Your task to perform on an android device: What is the speed of light? Image 0: 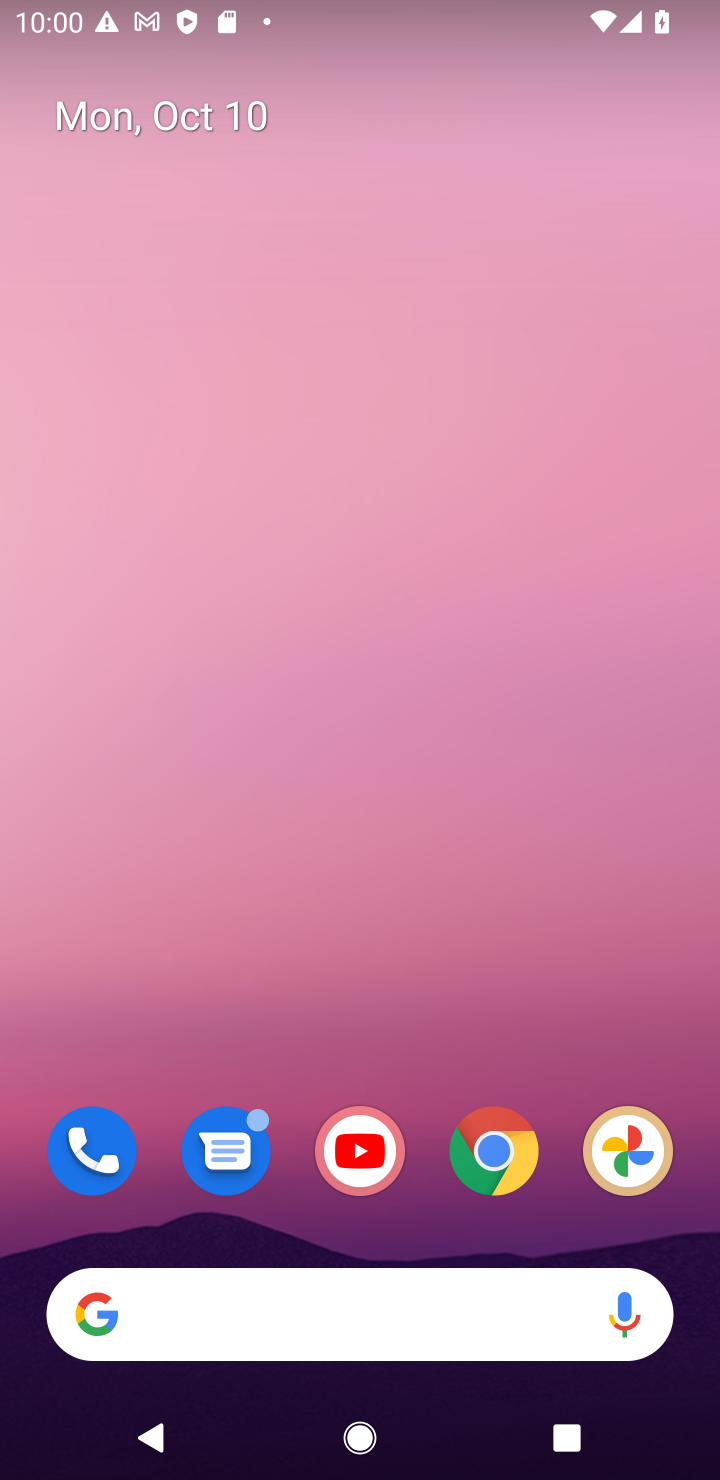
Step 0: click (473, 1179)
Your task to perform on an android device: What is the speed of light? Image 1: 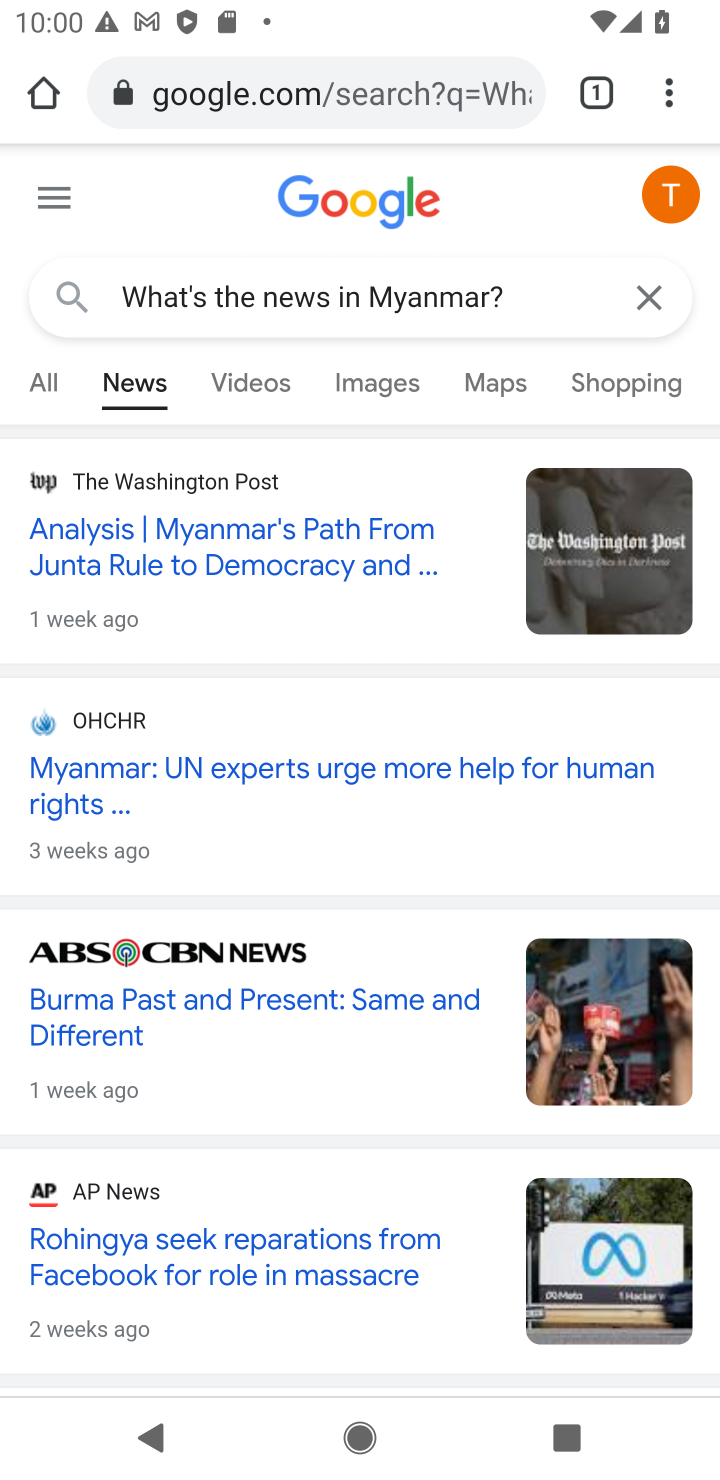
Step 1: click (377, 86)
Your task to perform on an android device: What is the speed of light? Image 2: 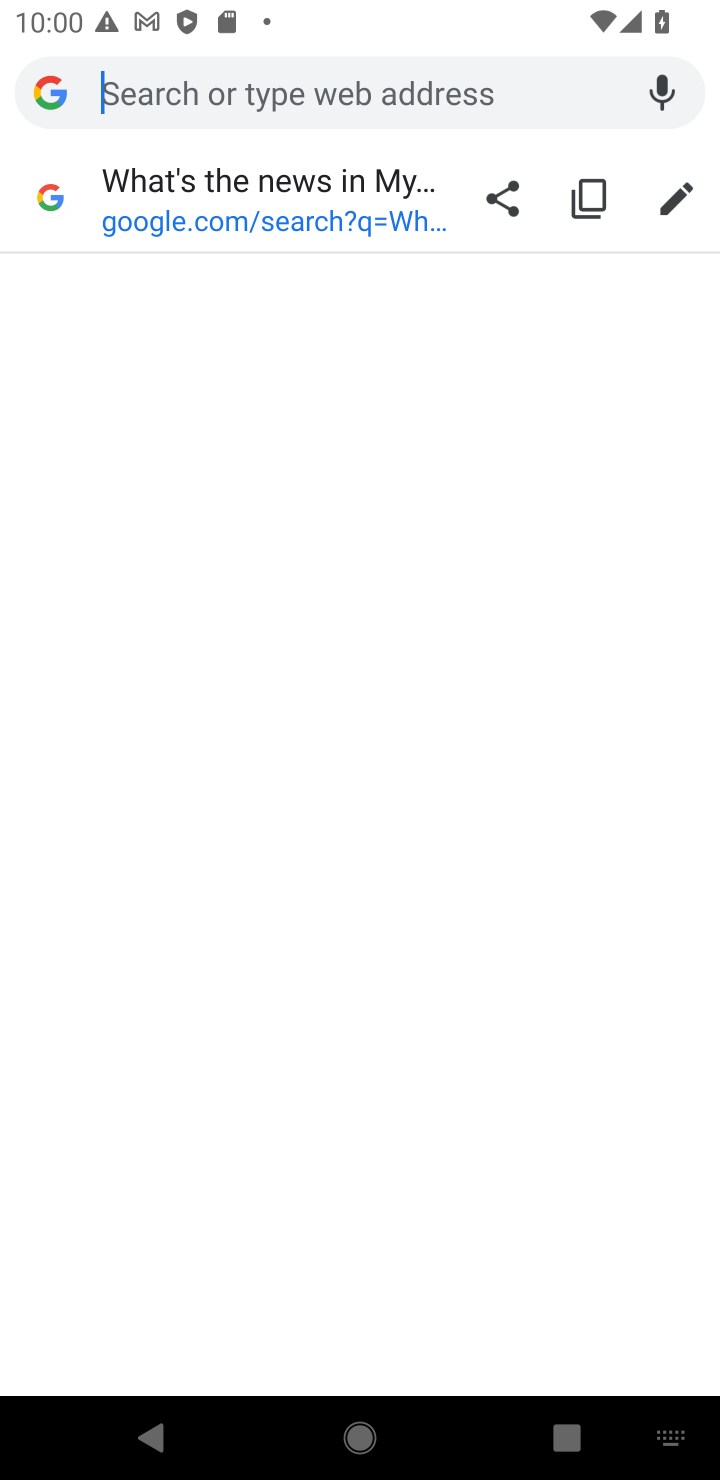
Step 2: type "What is the speed of light?"
Your task to perform on an android device: What is the speed of light? Image 3: 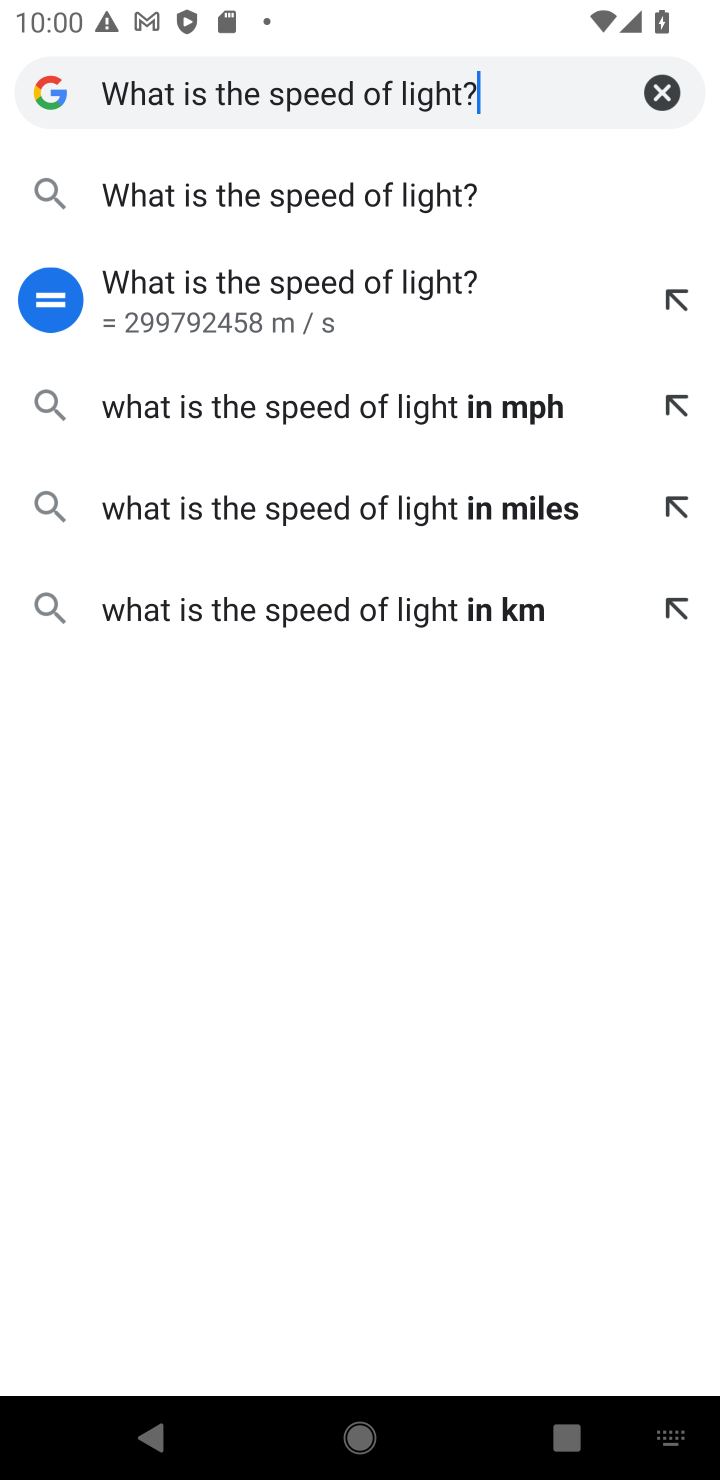
Step 3: click (306, 317)
Your task to perform on an android device: What is the speed of light? Image 4: 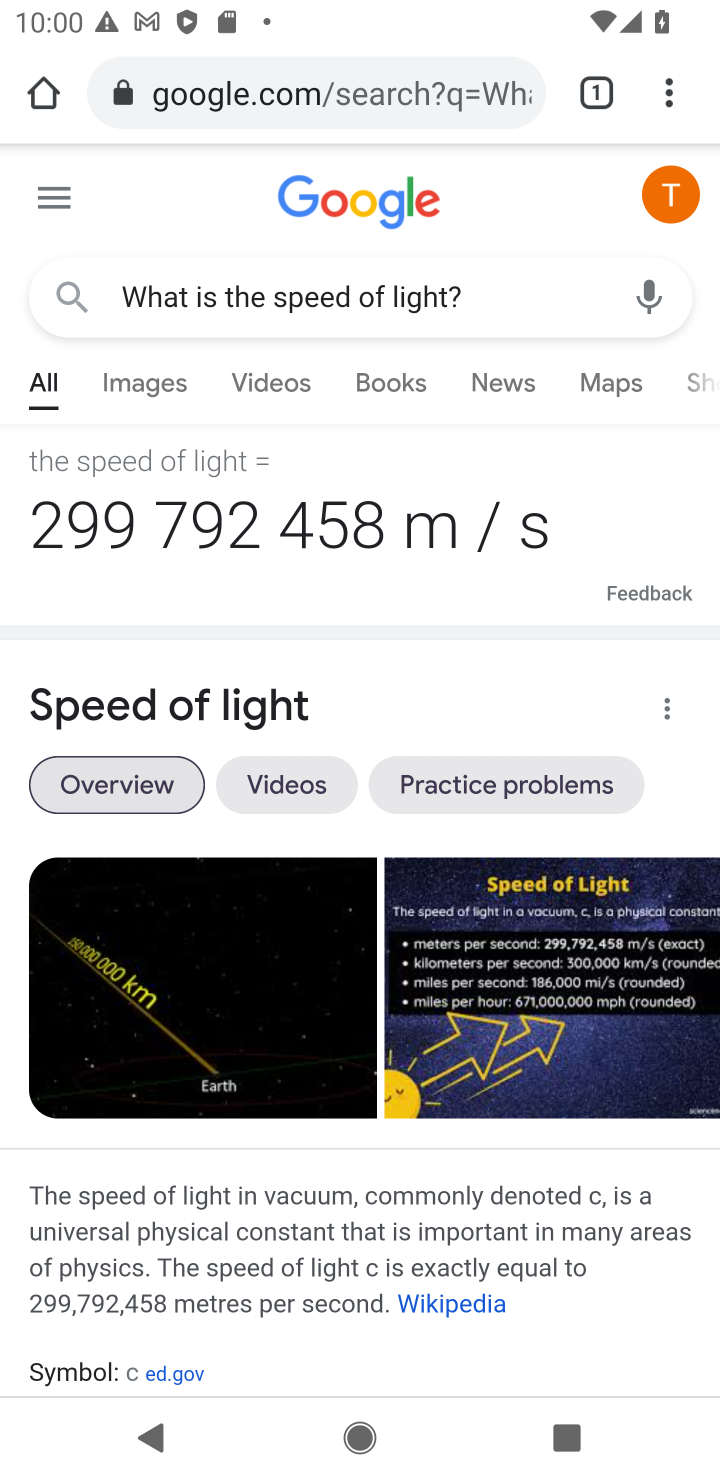
Step 4: task complete